Your task to perform on an android device: Open maps Image 0: 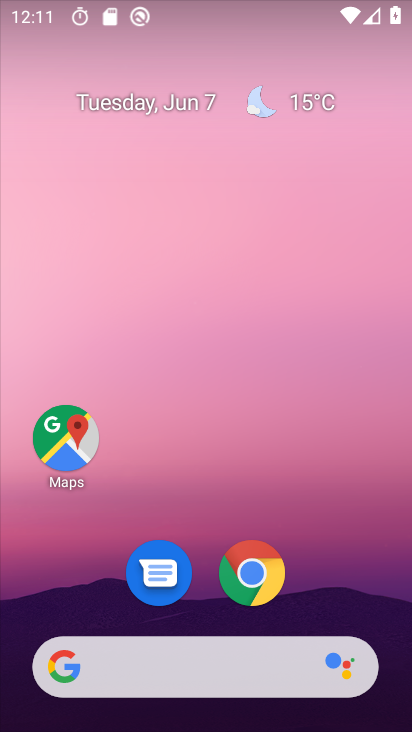
Step 0: click (77, 453)
Your task to perform on an android device: Open maps Image 1: 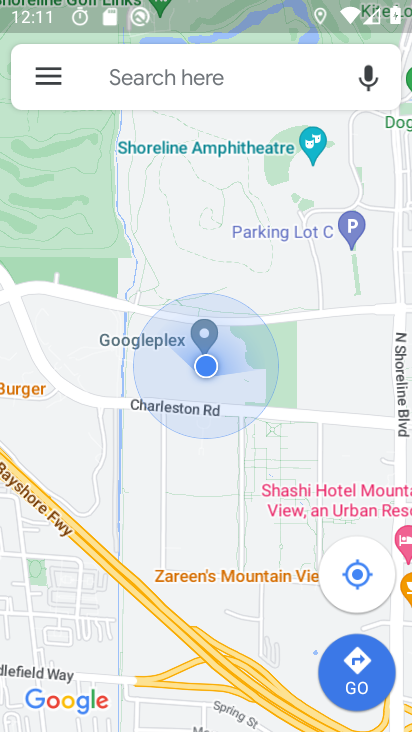
Step 1: task complete